Your task to perform on an android device: Open Yahoo.com Image 0: 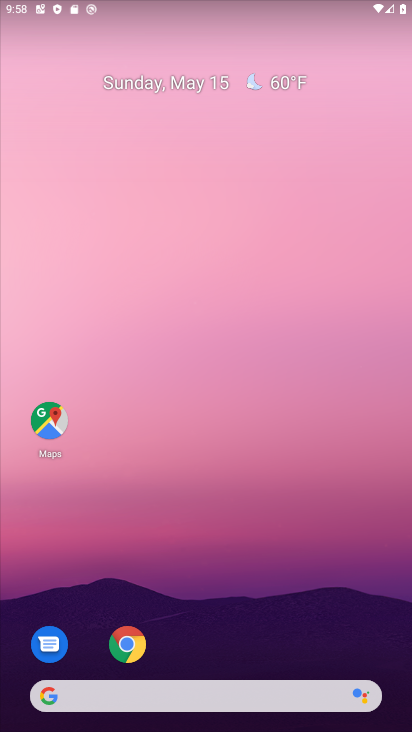
Step 0: click (136, 634)
Your task to perform on an android device: Open Yahoo.com Image 1: 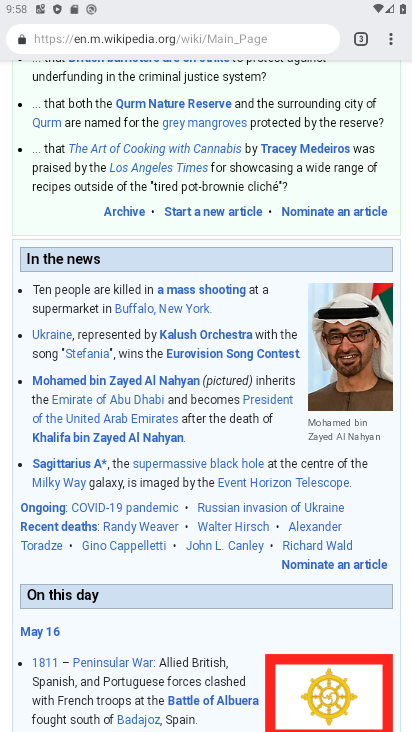
Step 1: click (354, 39)
Your task to perform on an android device: Open Yahoo.com Image 2: 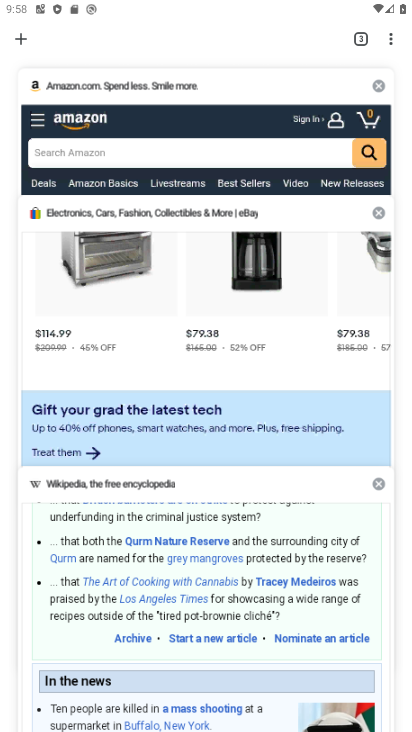
Step 2: click (377, 91)
Your task to perform on an android device: Open Yahoo.com Image 3: 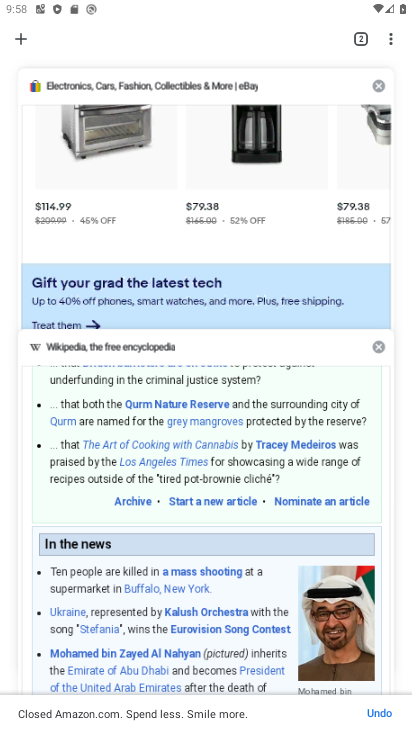
Step 3: click (386, 90)
Your task to perform on an android device: Open Yahoo.com Image 4: 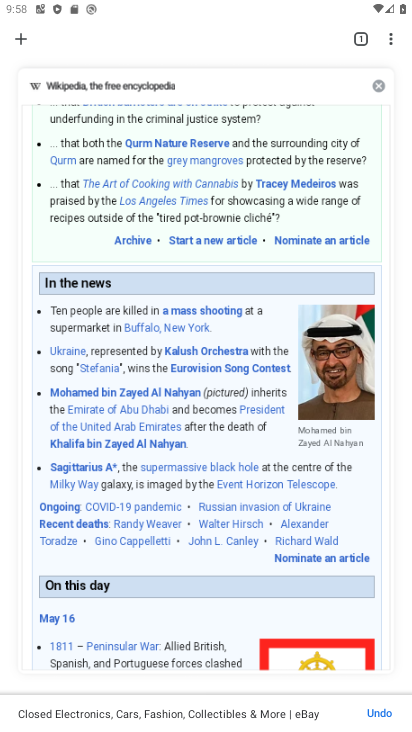
Step 4: click (378, 83)
Your task to perform on an android device: Open Yahoo.com Image 5: 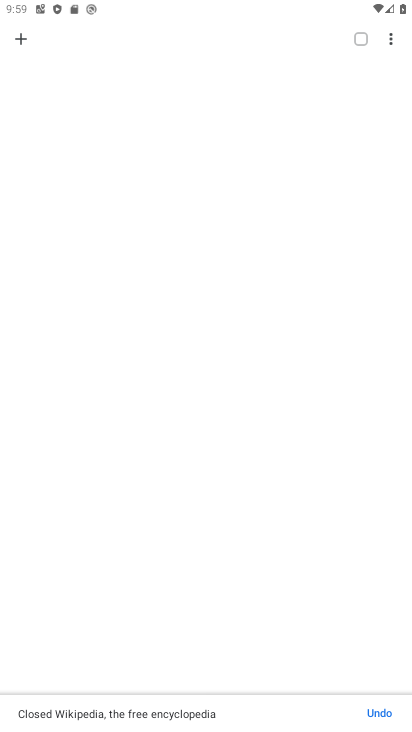
Step 5: click (12, 40)
Your task to perform on an android device: Open Yahoo.com Image 6: 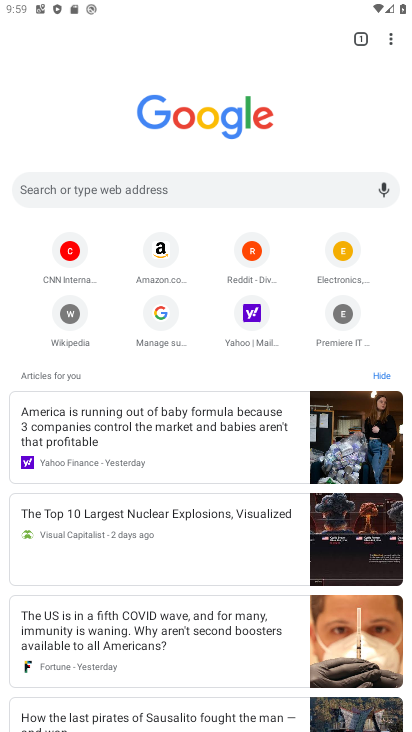
Step 6: click (240, 327)
Your task to perform on an android device: Open Yahoo.com Image 7: 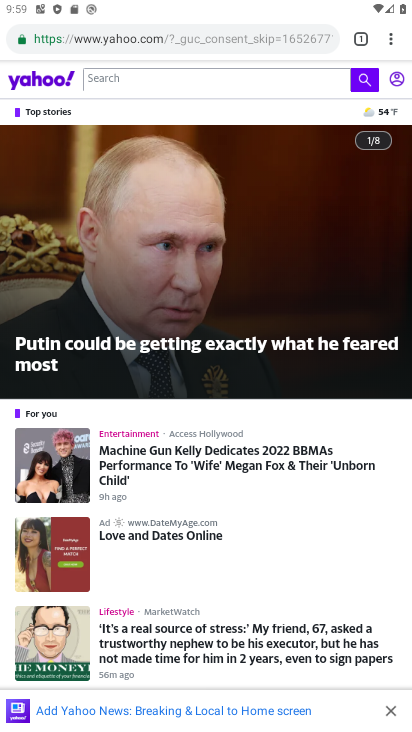
Step 7: task complete